Your task to perform on an android device: toggle sleep mode Image 0: 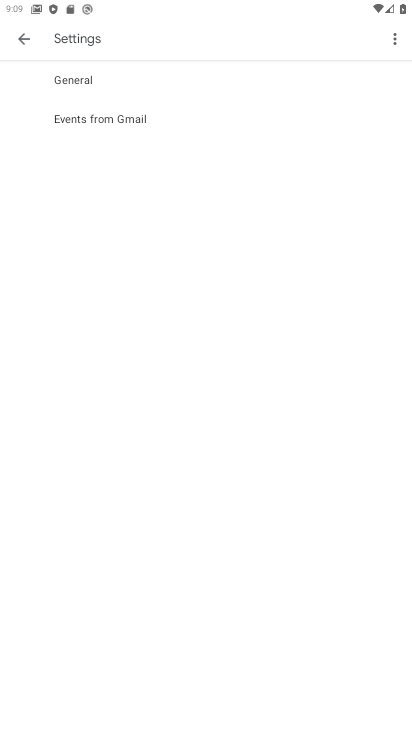
Step 0: press home button
Your task to perform on an android device: toggle sleep mode Image 1: 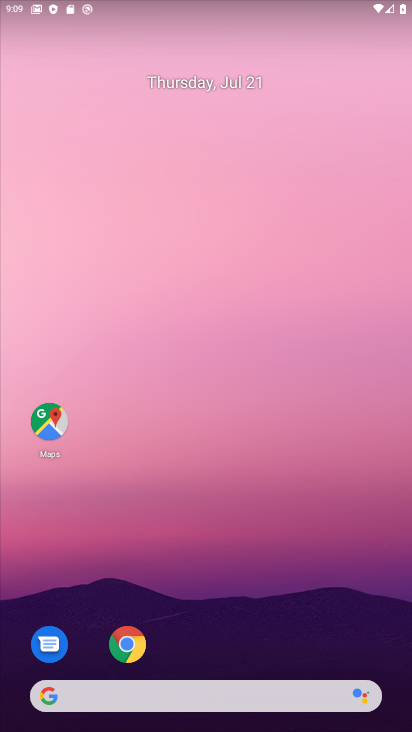
Step 1: drag from (192, 647) to (232, 122)
Your task to perform on an android device: toggle sleep mode Image 2: 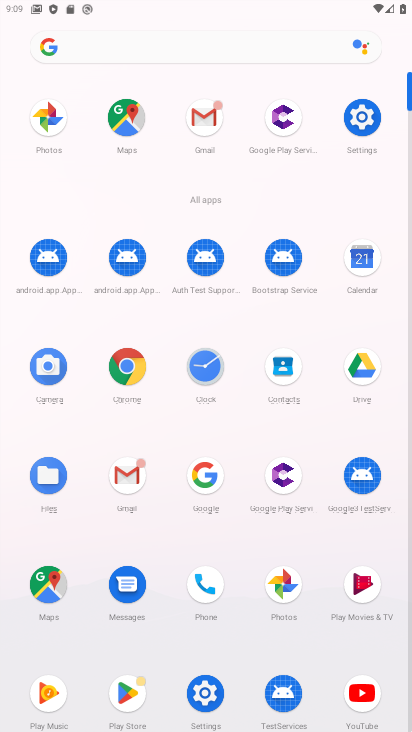
Step 2: click (206, 696)
Your task to perform on an android device: toggle sleep mode Image 3: 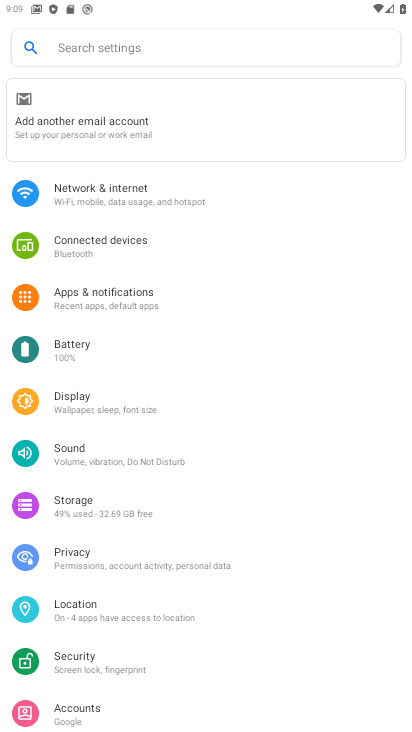
Step 3: click (129, 411)
Your task to perform on an android device: toggle sleep mode Image 4: 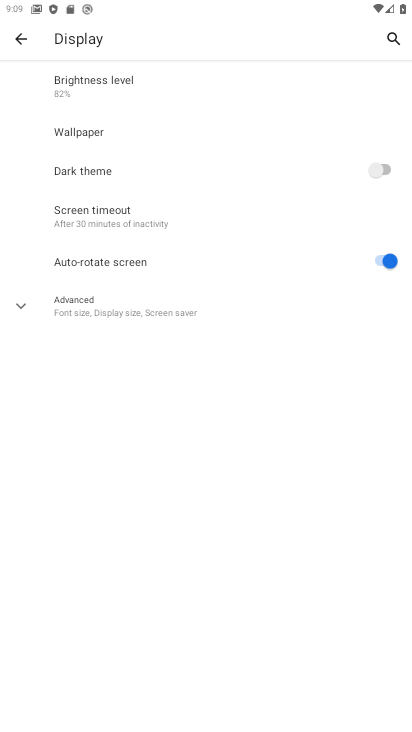
Step 4: click (95, 222)
Your task to perform on an android device: toggle sleep mode Image 5: 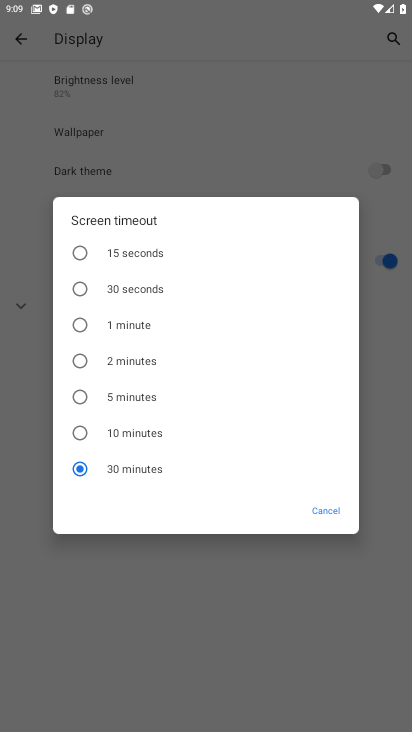
Step 5: click (78, 436)
Your task to perform on an android device: toggle sleep mode Image 6: 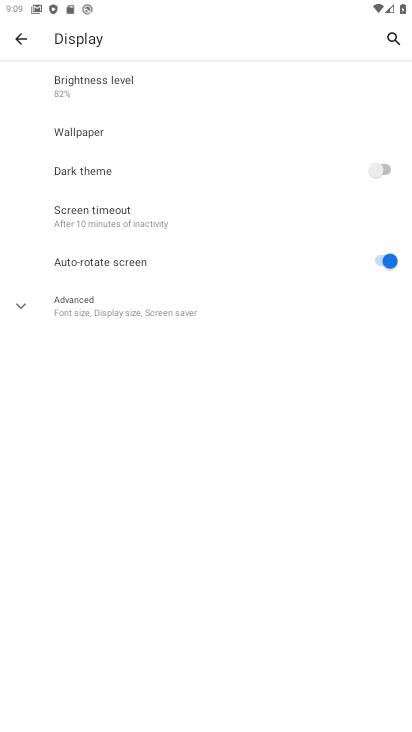
Step 6: task complete